Your task to perform on an android device: uninstall "Google Maps" Image 0: 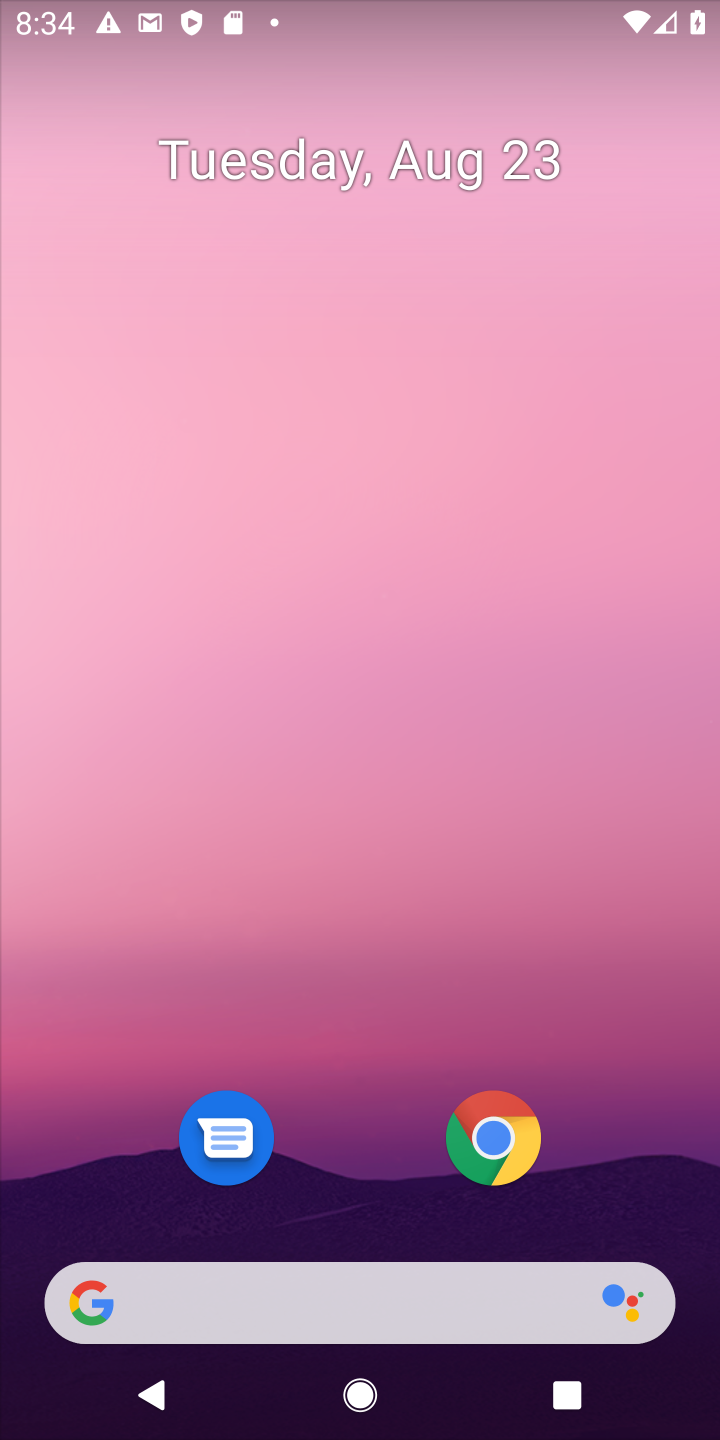
Step 0: press home button
Your task to perform on an android device: uninstall "Google Maps" Image 1: 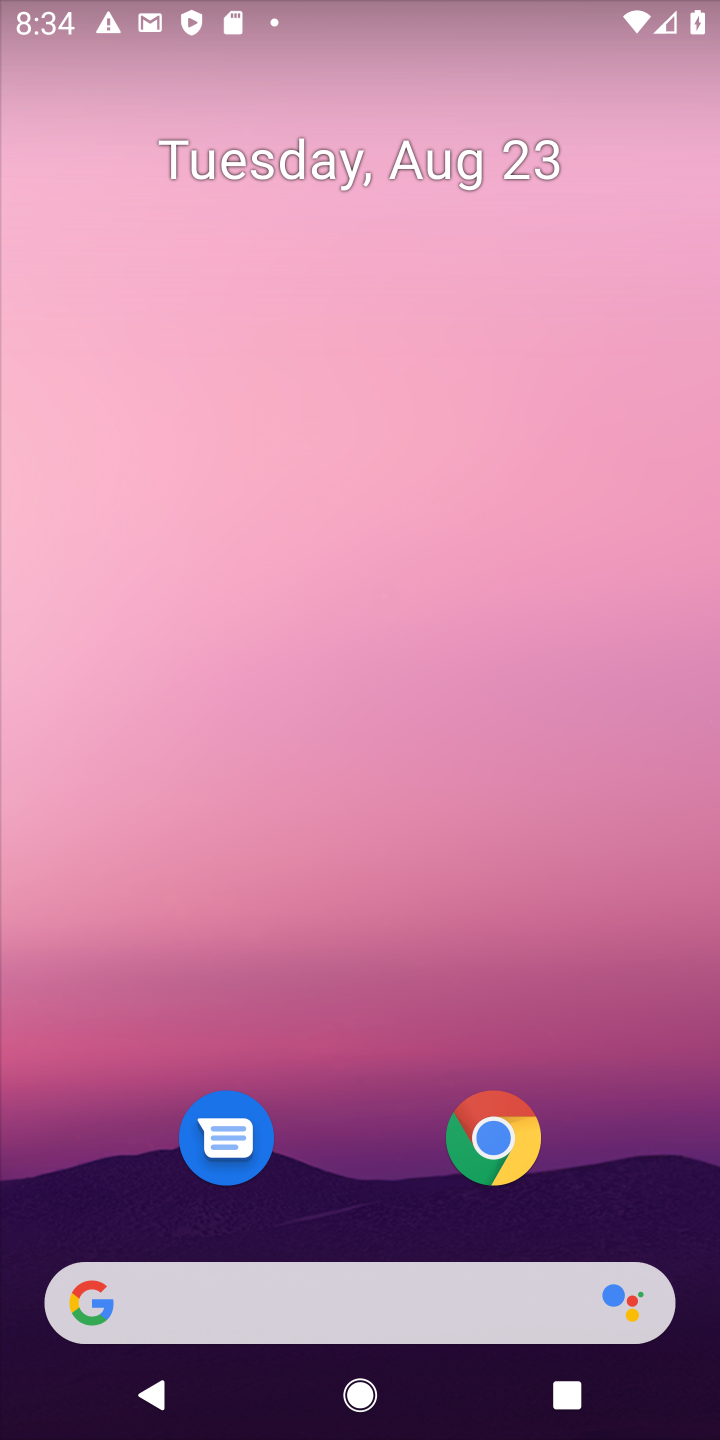
Step 1: drag from (606, 1173) to (643, 136)
Your task to perform on an android device: uninstall "Google Maps" Image 2: 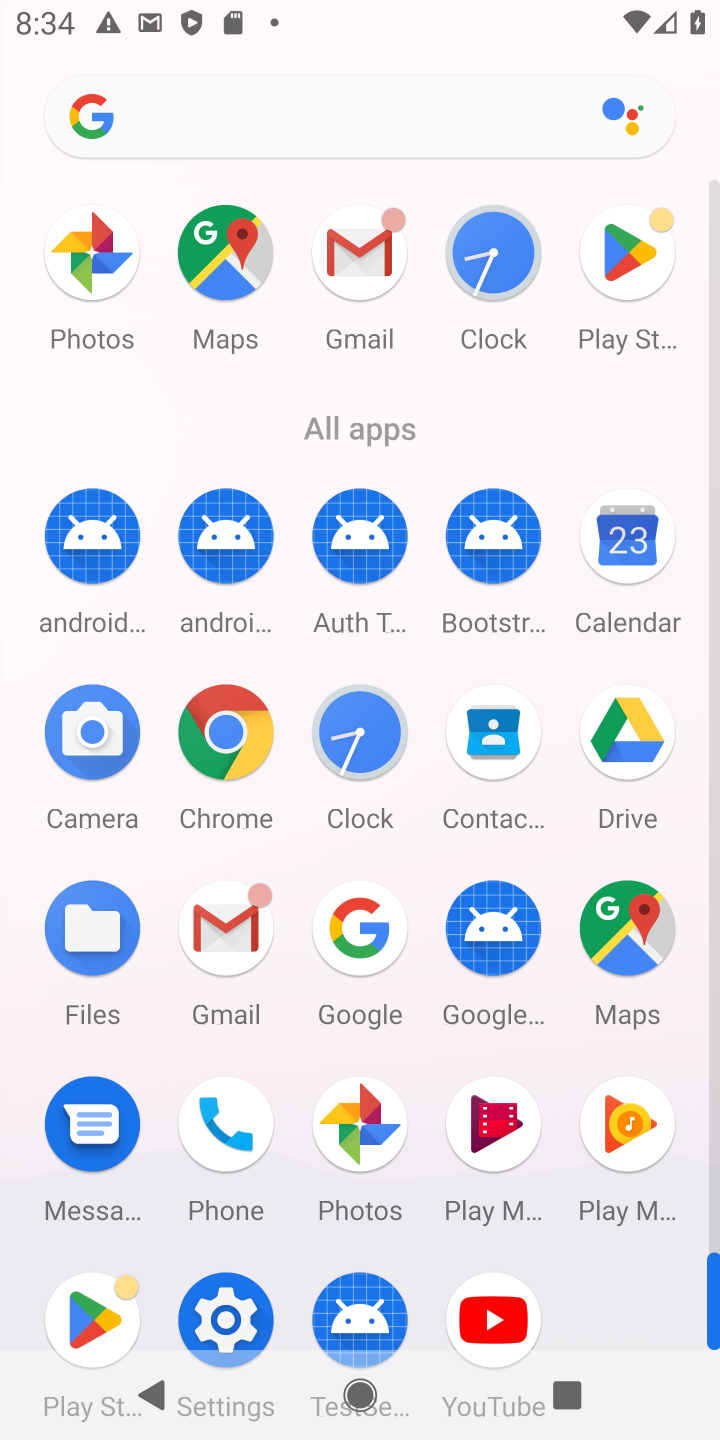
Step 2: click (621, 255)
Your task to perform on an android device: uninstall "Google Maps" Image 3: 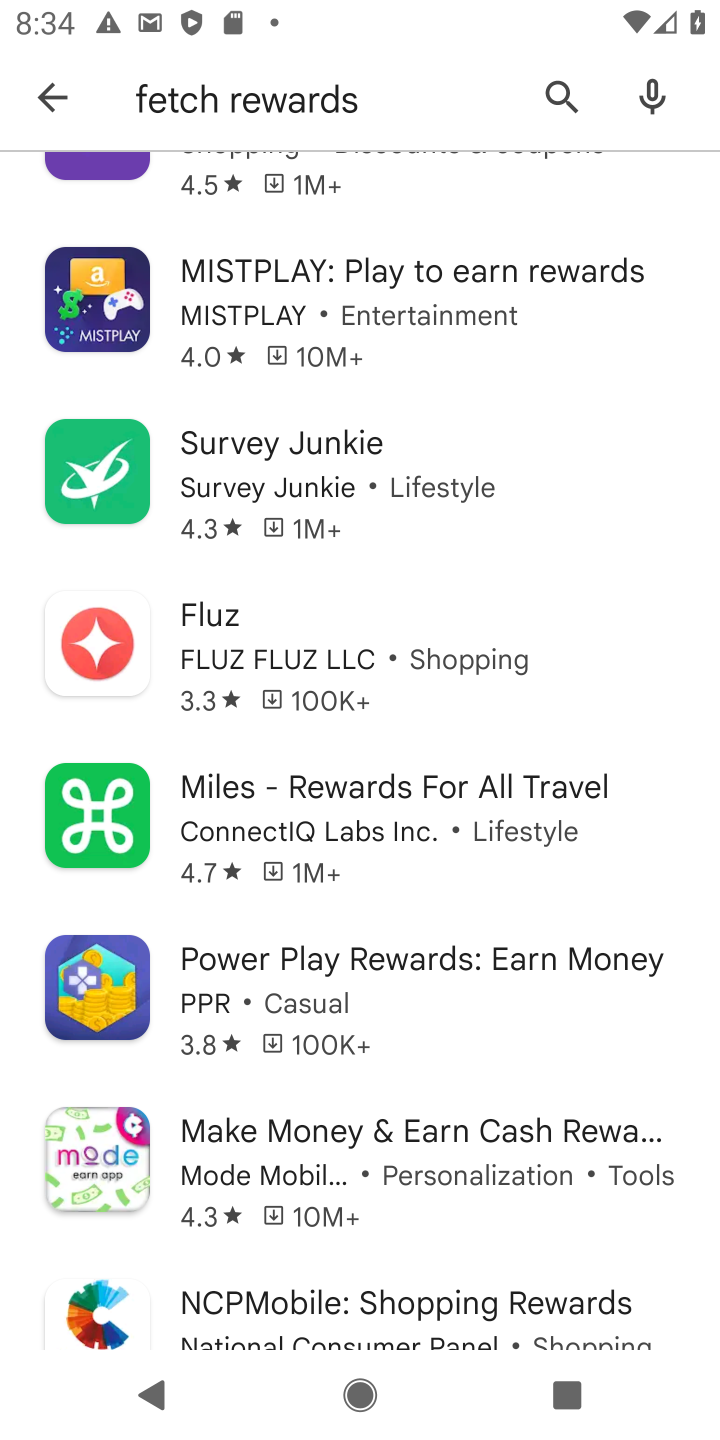
Step 3: press back button
Your task to perform on an android device: uninstall "Google Maps" Image 4: 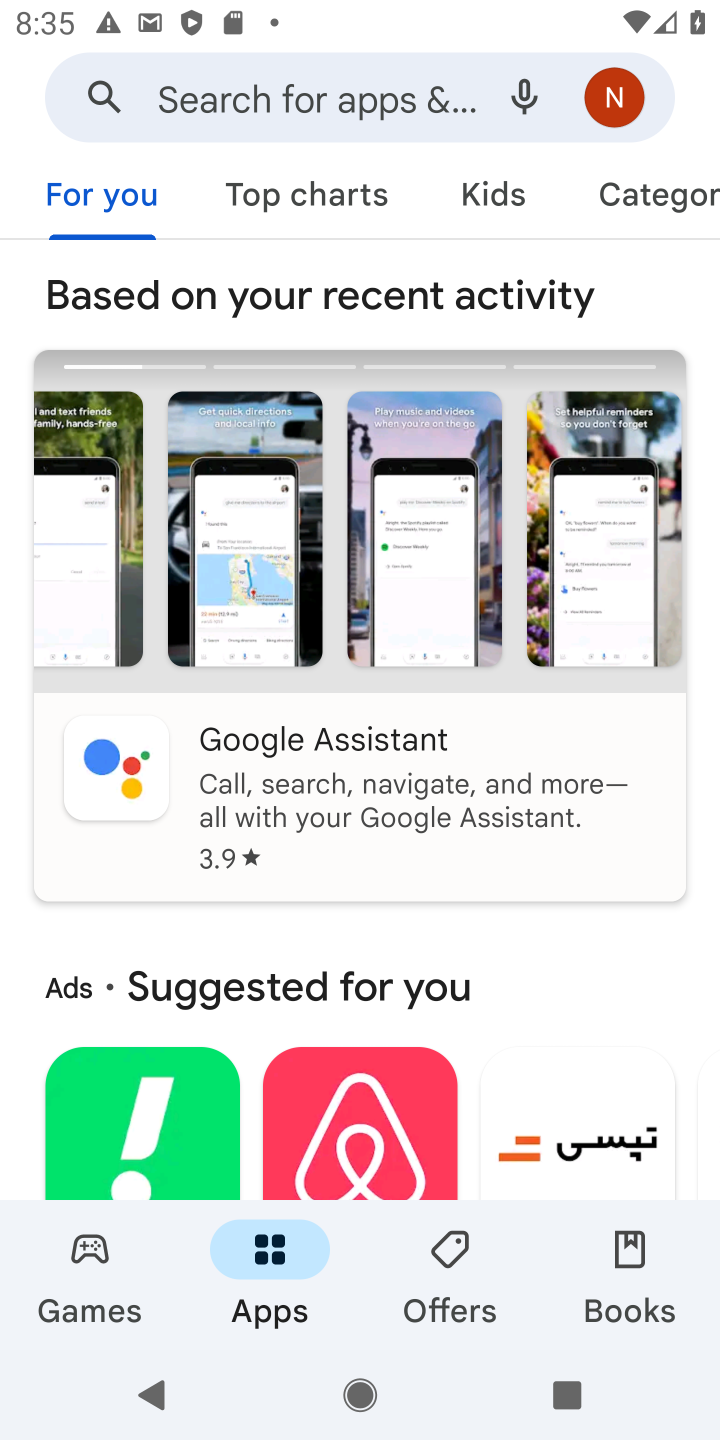
Step 4: click (247, 93)
Your task to perform on an android device: uninstall "Google Maps" Image 5: 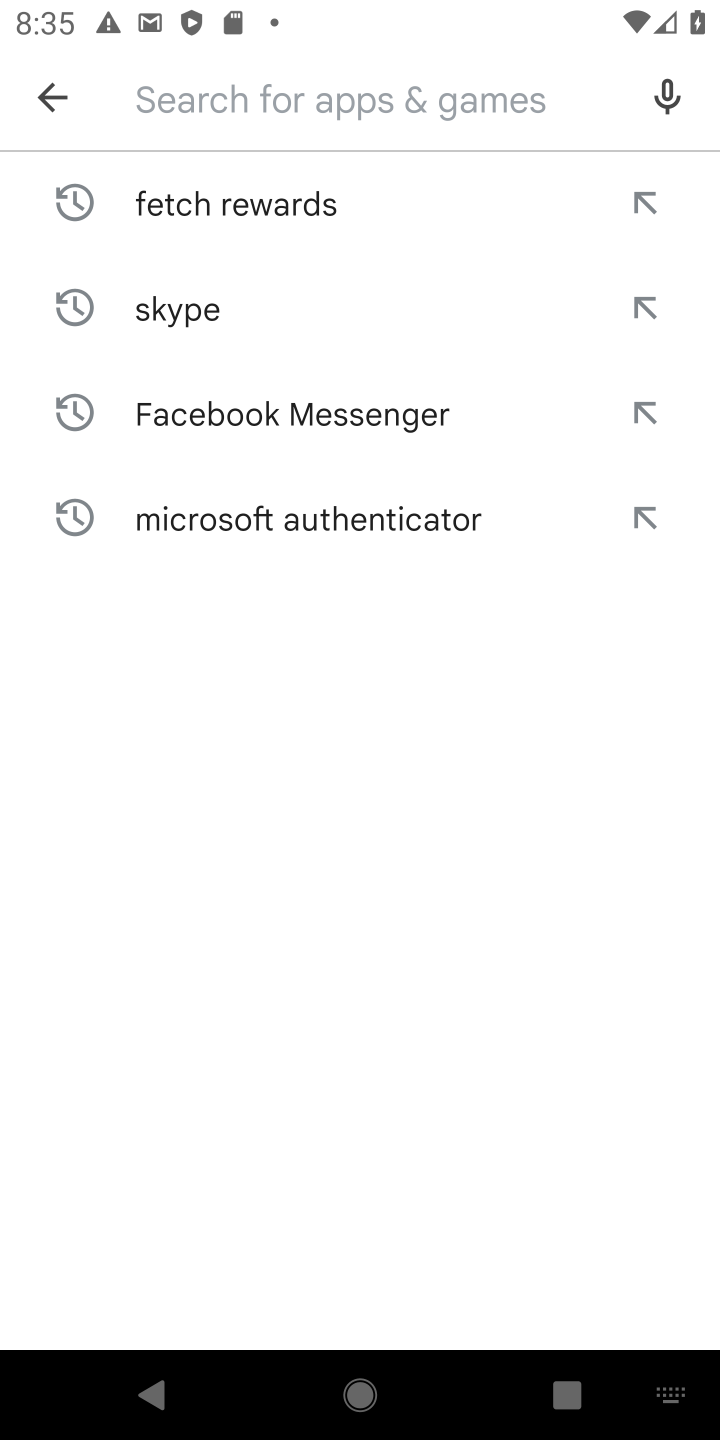
Step 5: type "google maps"
Your task to perform on an android device: uninstall "Google Maps" Image 6: 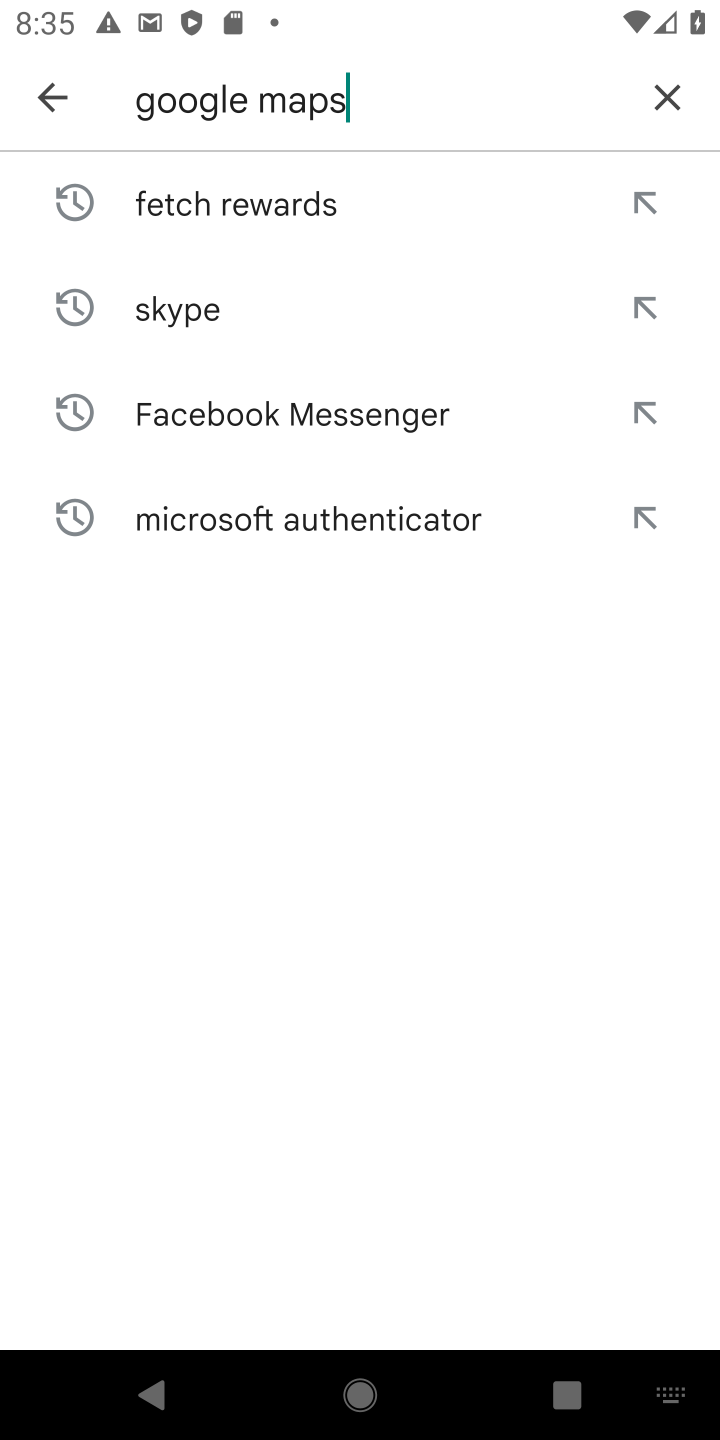
Step 6: press enter
Your task to perform on an android device: uninstall "Google Maps" Image 7: 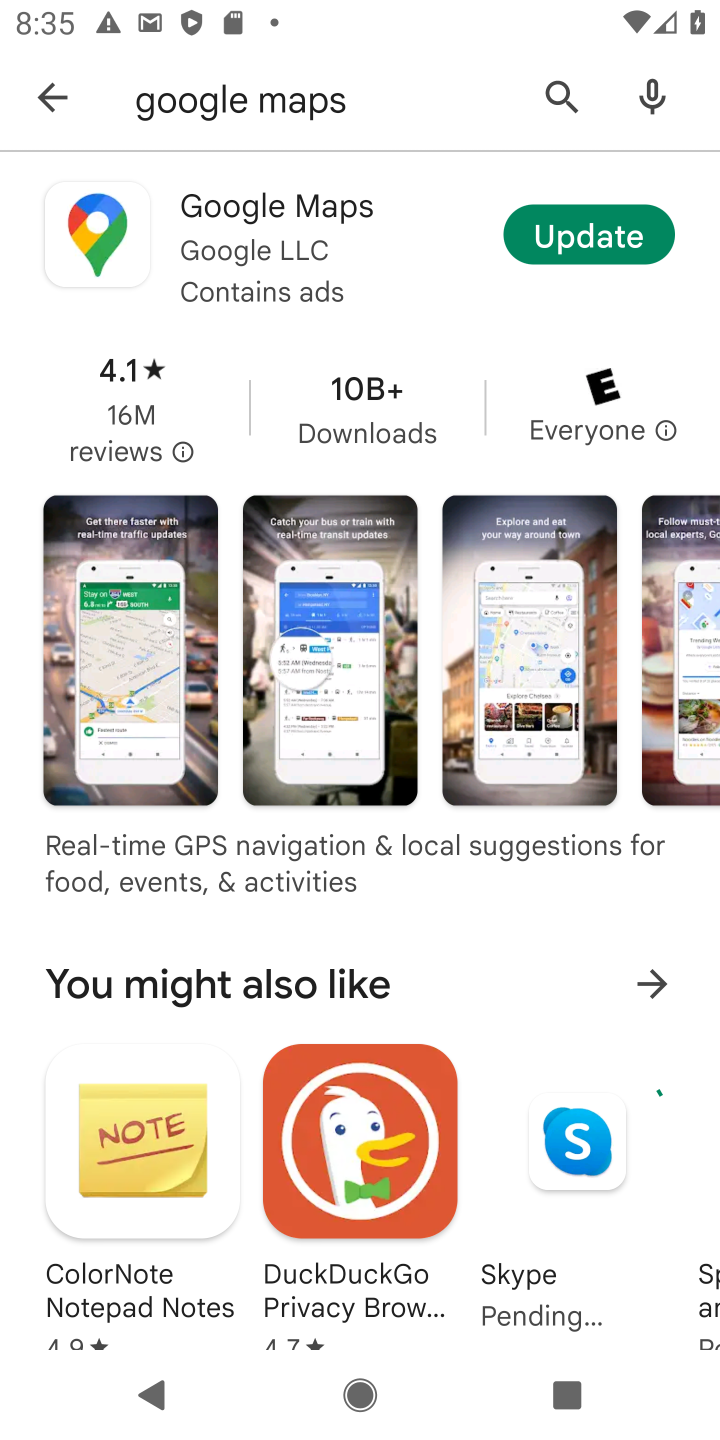
Step 7: task complete